Your task to perform on an android device: Go to network settings Image 0: 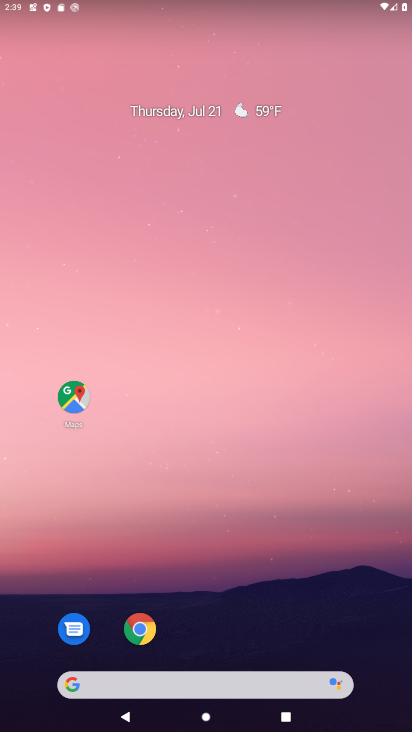
Step 0: drag from (169, 704) to (167, 62)
Your task to perform on an android device: Go to network settings Image 1: 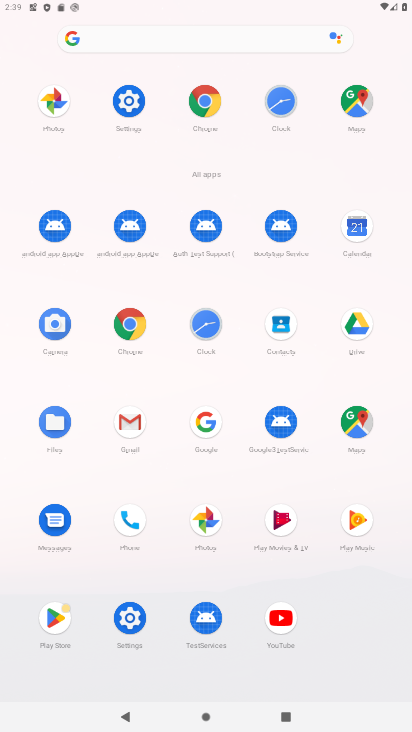
Step 1: click (132, 102)
Your task to perform on an android device: Go to network settings Image 2: 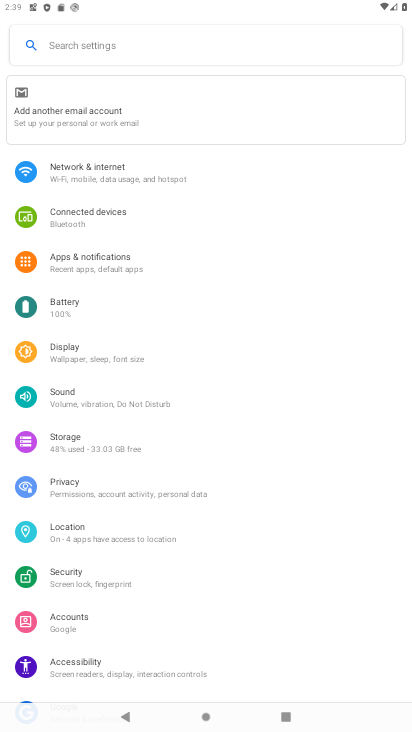
Step 2: click (92, 176)
Your task to perform on an android device: Go to network settings Image 3: 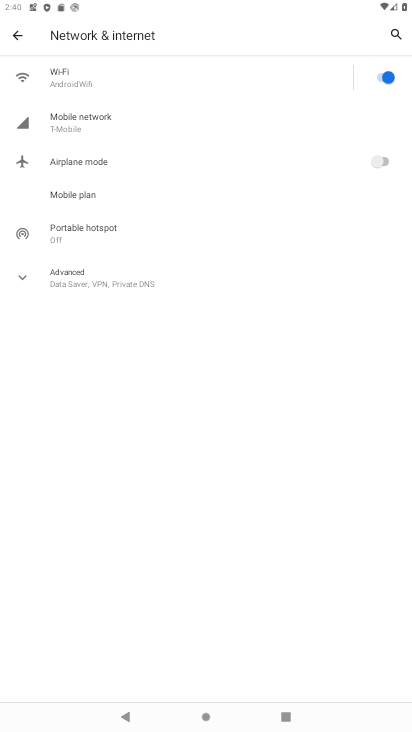
Step 3: click (83, 116)
Your task to perform on an android device: Go to network settings Image 4: 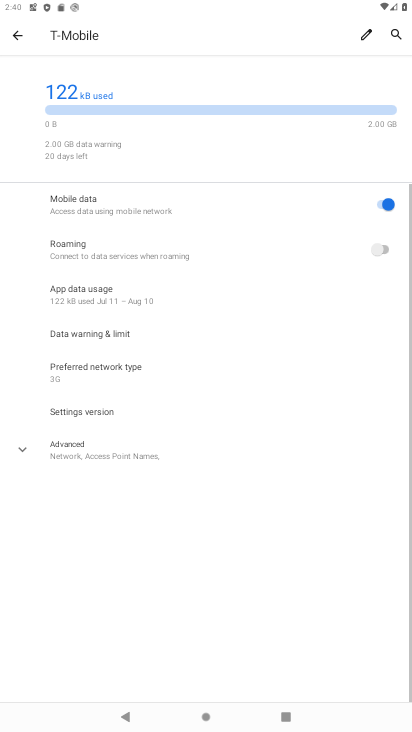
Step 4: task complete